Your task to perform on an android device: Show me popular videos on Youtube Image 0: 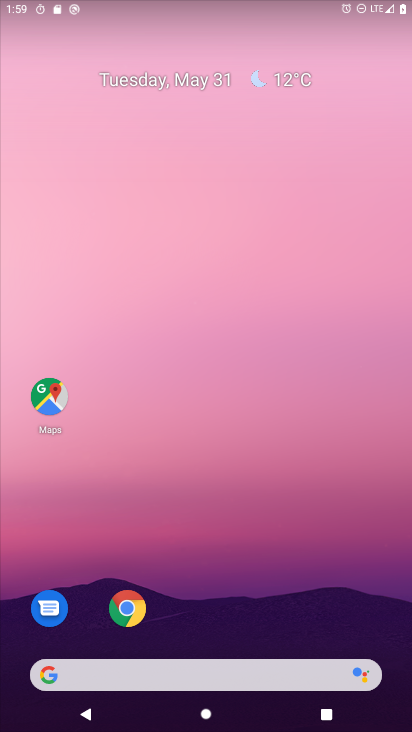
Step 0: drag from (278, 574) to (404, 20)
Your task to perform on an android device: Show me popular videos on Youtube Image 1: 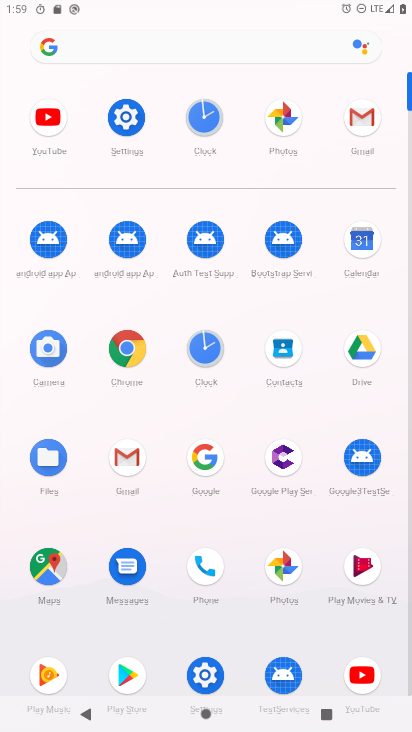
Step 1: click (358, 668)
Your task to perform on an android device: Show me popular videos on Youtube Image 2: 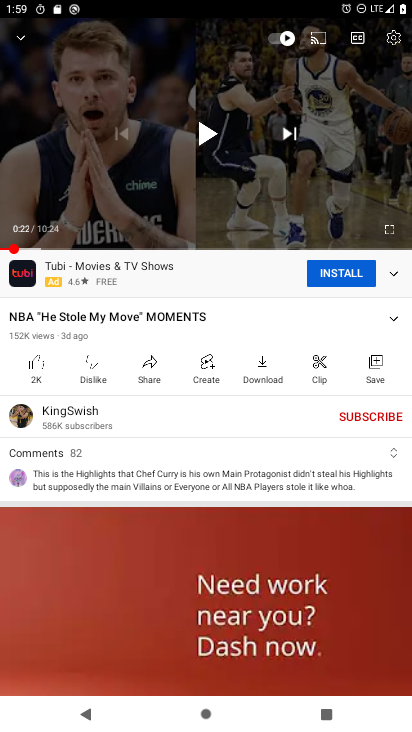
Step 2: click (18, 42)
Your task to perform on an android device: Show me popular videos on Youtube Image 3: 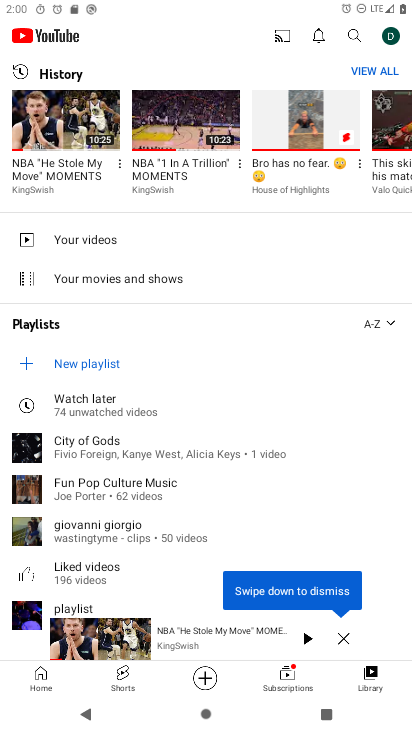
Step 3: click (36, 673)
Your task to perform on an android device: Show me popular videos on Youtube Image 4: 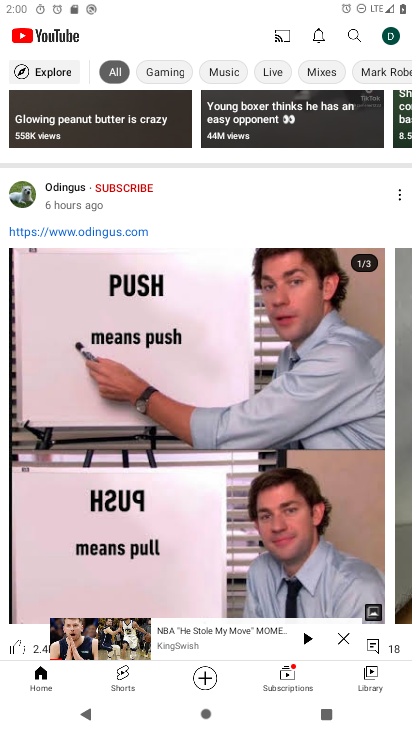
Step 4: task complete